Your task to perform on an android device: check google app version Image 0: 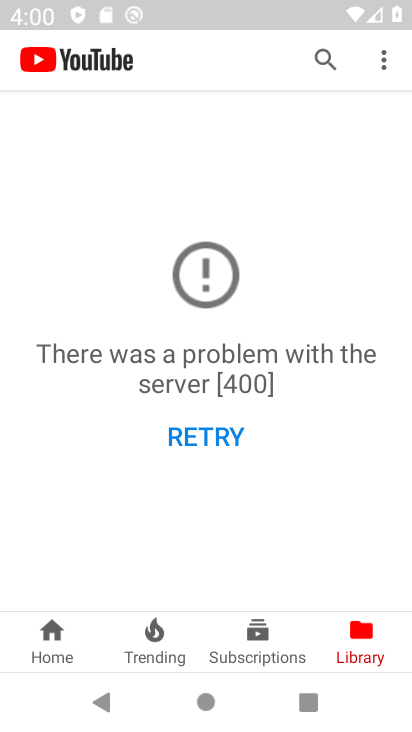
Step 0: press home button
Your task to perform on an android device: check google app version Image 1: 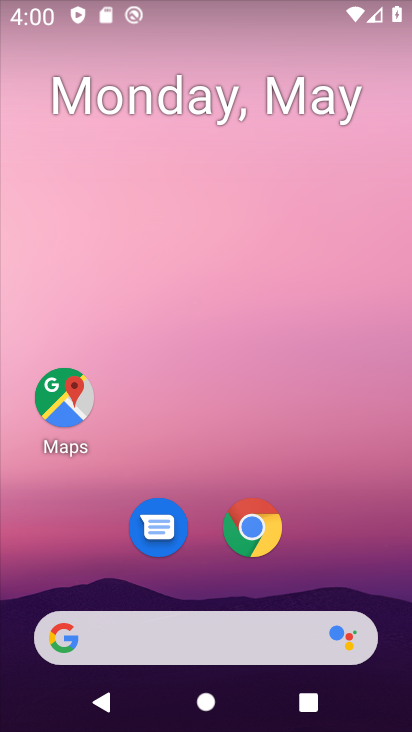
Step 1: click (73, 640)
Your task to perform on an android device: check google app version Image 2: 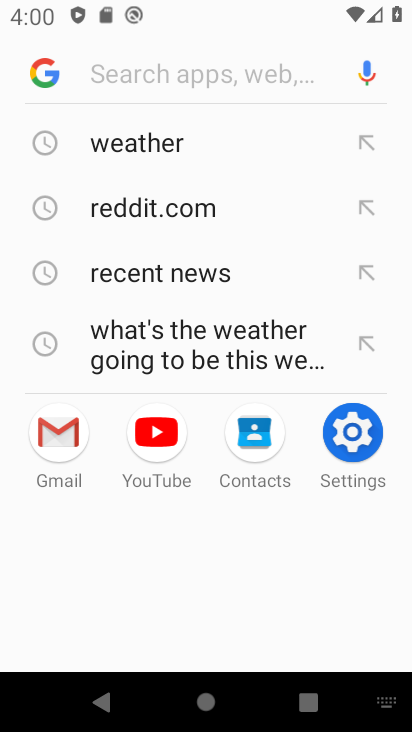
Step 2: click (32, 57)
Your task to perform on an android device: check google app version Image 3: 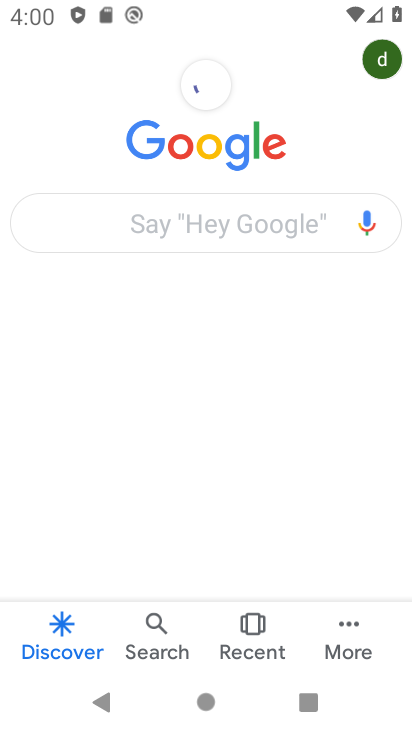
Step 3: click (340, 623)
Your task to perform on an android device: check google app version Image 4: 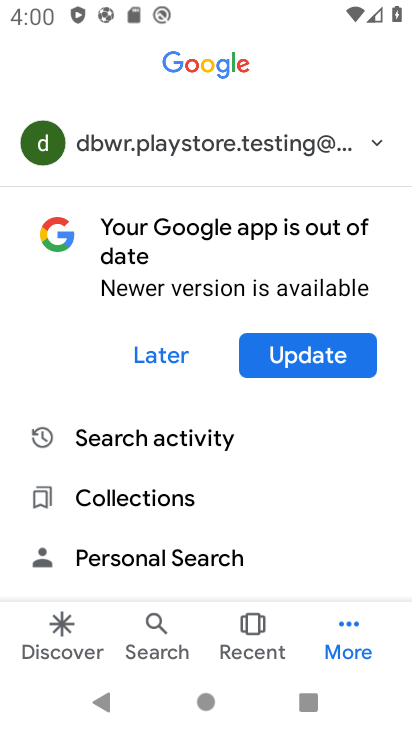
Step 4: click (354, 630)
Your task to perform on an android device: check google app version Image 5: 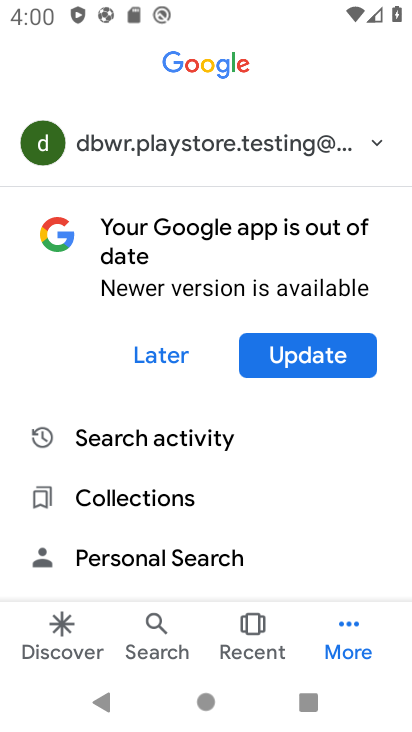
Step 5: drag from (177, 541) to (166, 162)
Your task to perform on an android device: check google app version Image 6: 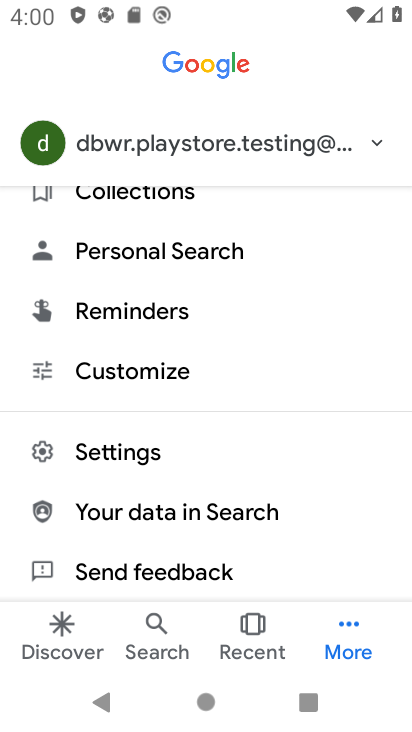
Step 6: click (231, 473)
Your task to perform on an android device: check google app version Image 7: 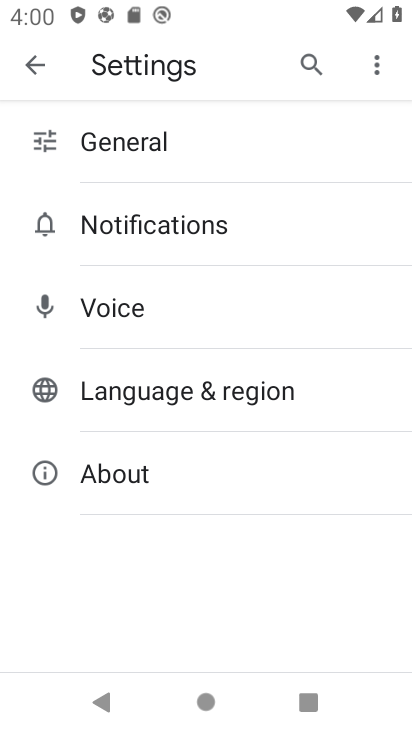
Step 7: click (165, 463)
Your task to perform on an android device: check google app version Image 8: 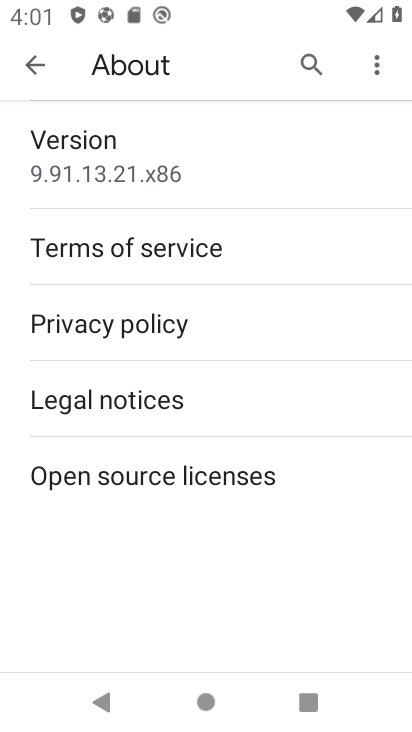
Step 8: task complete